Your task to perform on an android device: What's the weather going to be this weekend? Image 0: 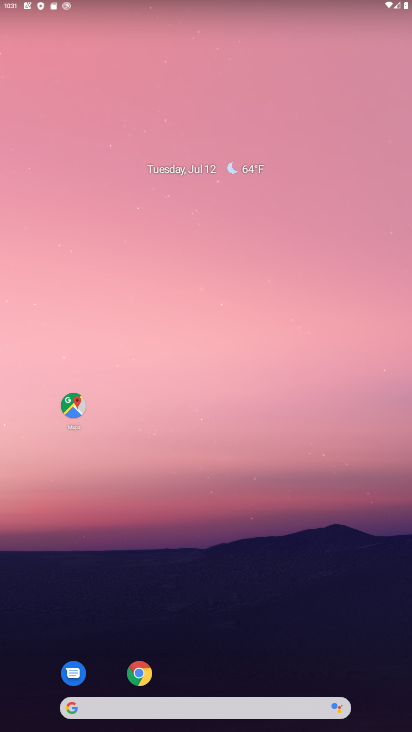
Step 0: drag from (294, 564) to (264, 113)
Your task to perform on an android device: What's the weather going to be this weekend? Image 1: 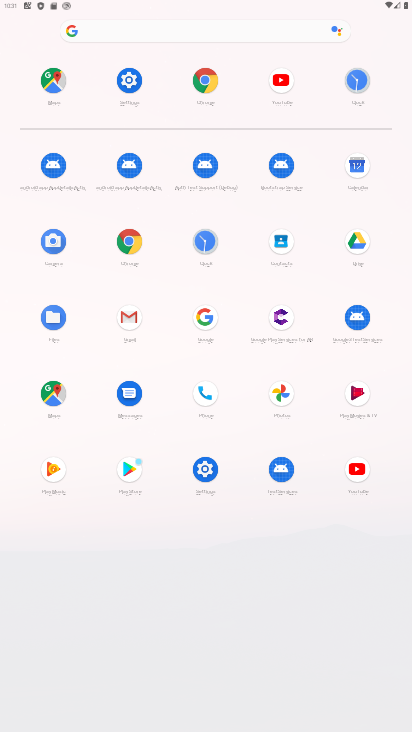
Step 1: press back button
Your task to perform on an android device: What's the weather going to be this weekend? Image 2: 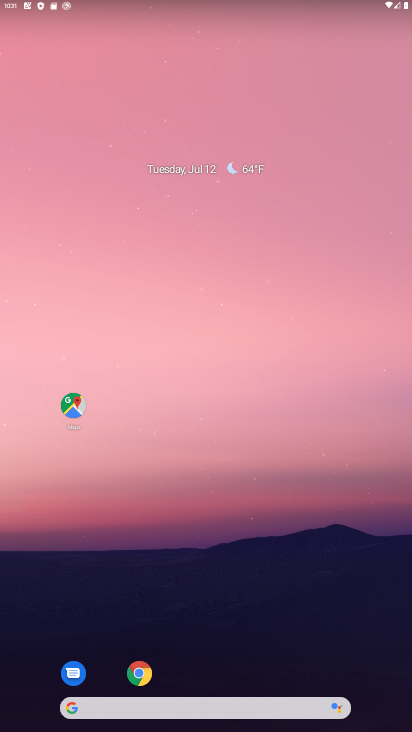
Step 2: click (253, 164)
Your task to perform on an android device: What's the weather going to be this weekend? Image 3: 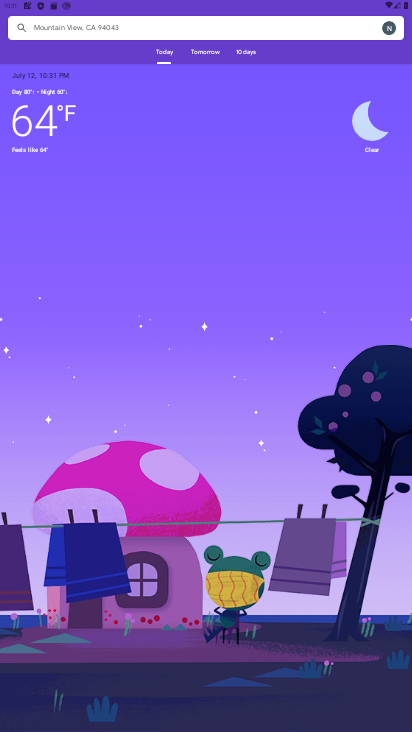
Step 3: click (244, 55)
Your task to perform on an android device: What's the weather going to be this weekend? Image 4: 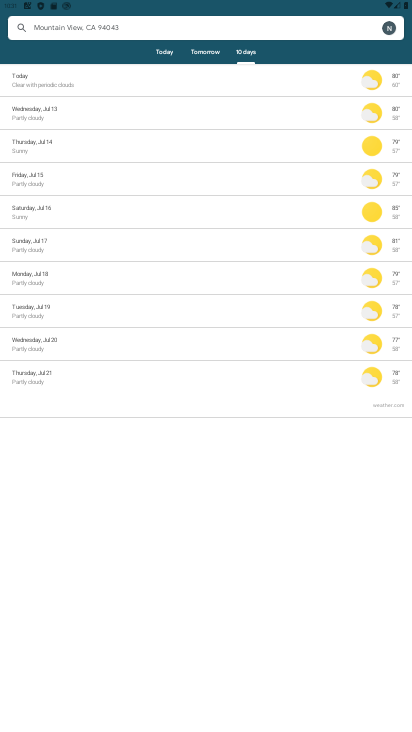
Step 4: click (38, 211)
Your task to perform on an android device: What's the weather going to be this weekend? Image 5: 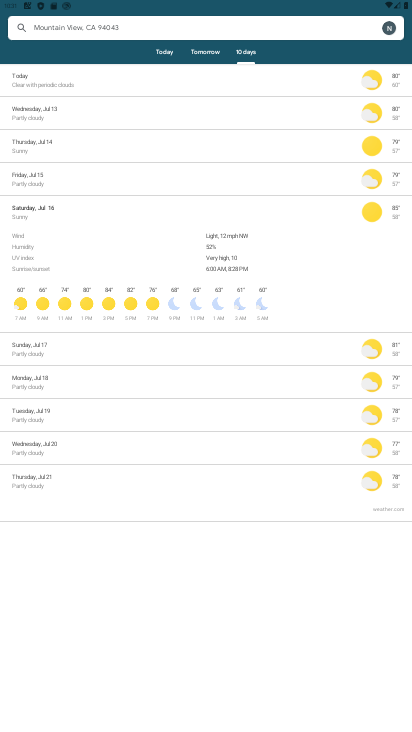
Step 5: task complete